Your task to perform on an android device: change keyboard looks Image 0: 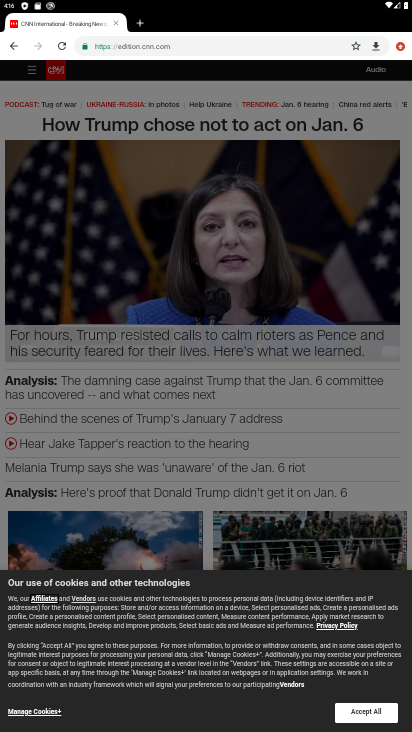
Step 0: press home button
Your task to perform on an android device: change keyboard looks Image 1: 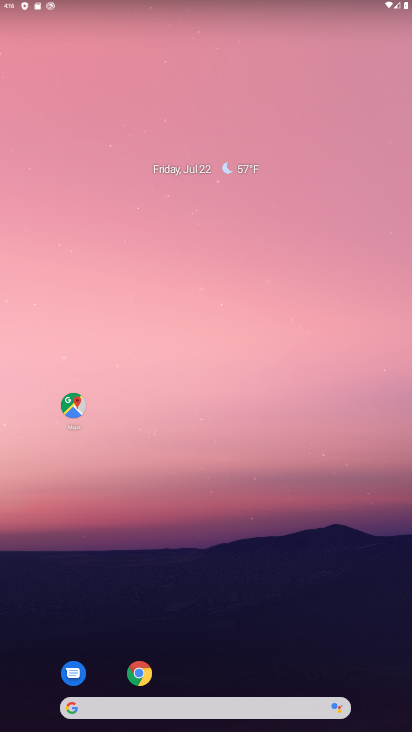
Step 1: drag from (311, 627) to (223, 103)
Your task to perform on an android device: change keyboard looks Image 2: 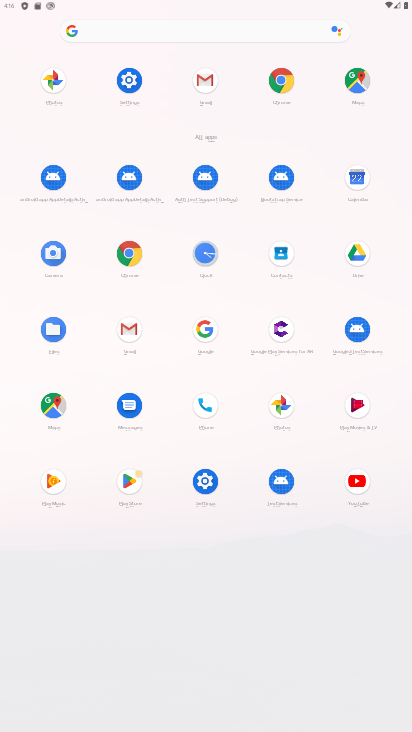
Step 2: click (209, 492)
Your task to perform on an android device: change keyboard looks Image 3: 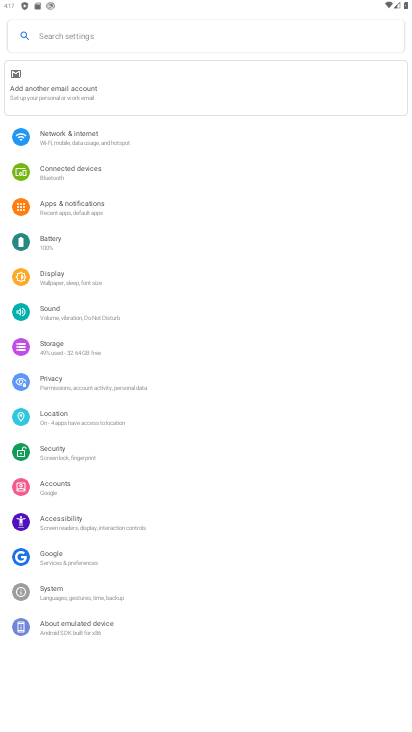
Step 3: click (47, 601)
Your task to perform on an android device: change keyboard looks Image 4: 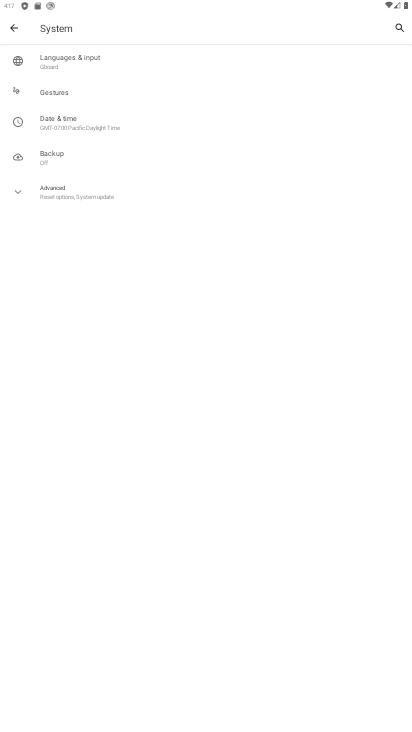
Step 4: click (101, 55)
Your task to perform on an android device: change keyboard looks Image 5: 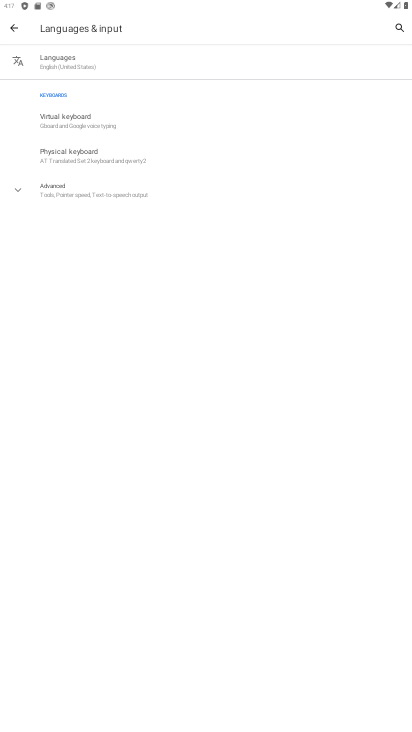
Step 5: click (117, 126)
Your task to perform on an android device: change keyboard looks Image 6: 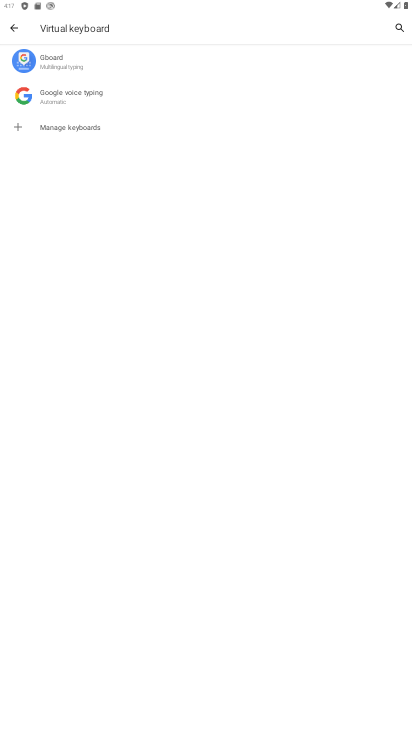
Step 6: click (74, 53)
Your task to perform on an android device: change keyboard looks Image 7: 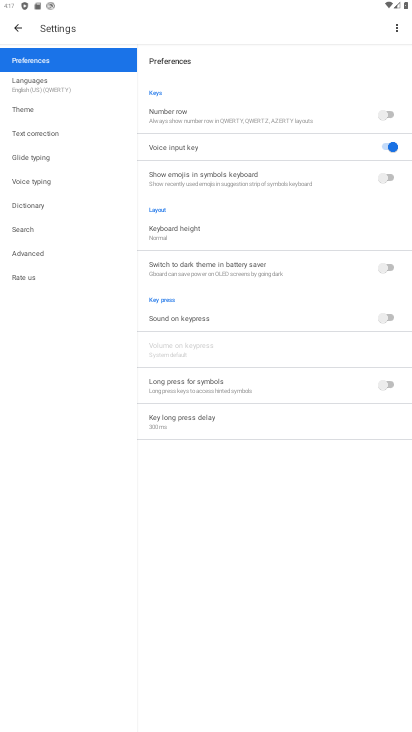
Step 7: click (44, 106)
Your task to perform on an android device: change keyboard looks Image 8: 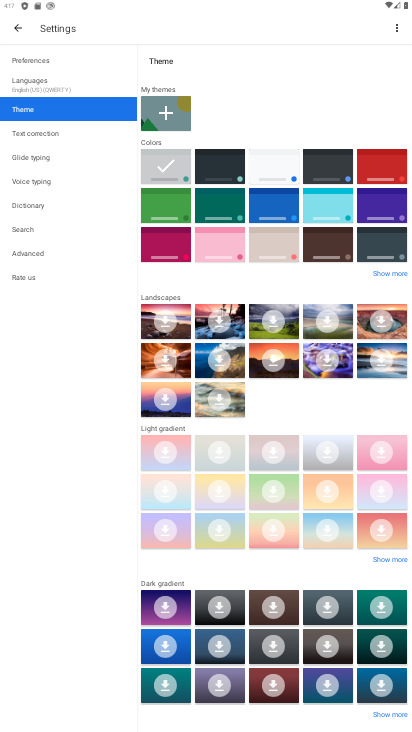
Step 8: click (229, 244)
Your task to perform on an android device: change keyboard looks Image 9: 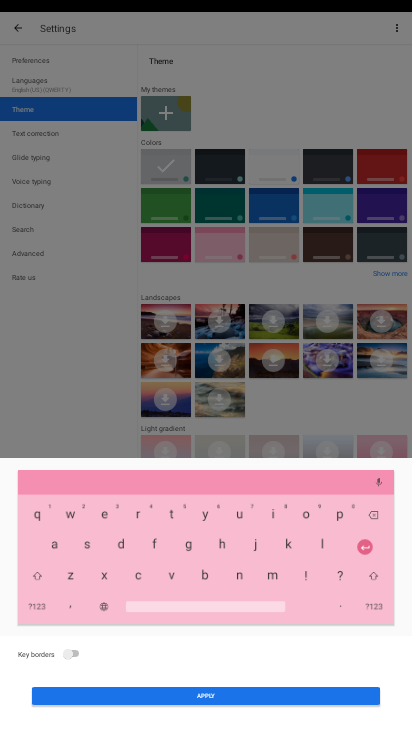
Step 9: click (230, 698)
Your task to perform on an android device: change keyboard looks Image 10: 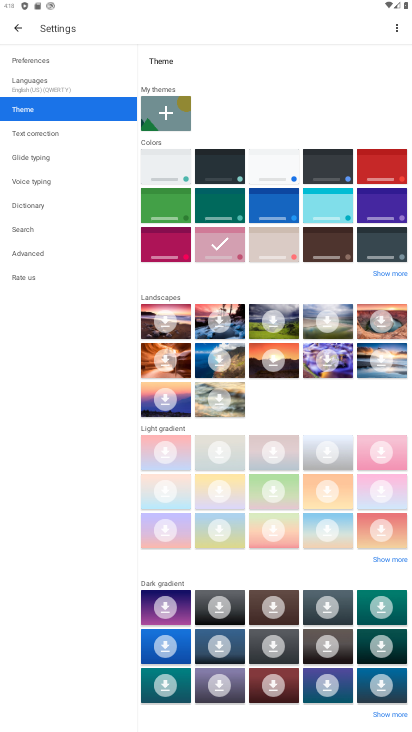
Step 10: task complete